Your task to perform on an android device: turn off wifi Image 0: 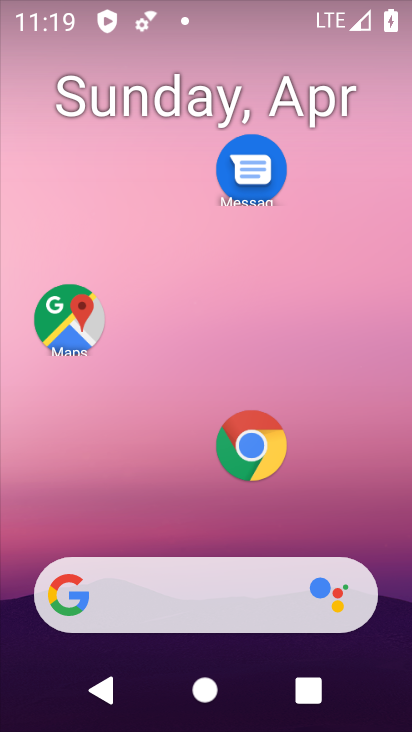
Step 0: drag from (160, 614) to (363, 102)
Your task to perform on an android device: turn off wifi Image 1: 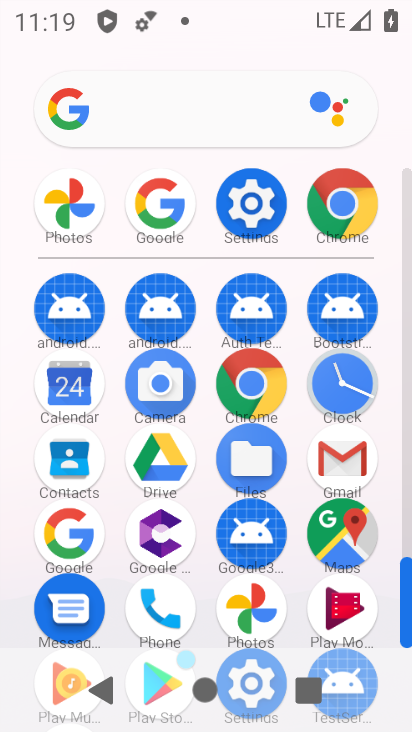
Step 1: click (248, 221)
Your task to perform on an android device: turn off wifi Image 2: 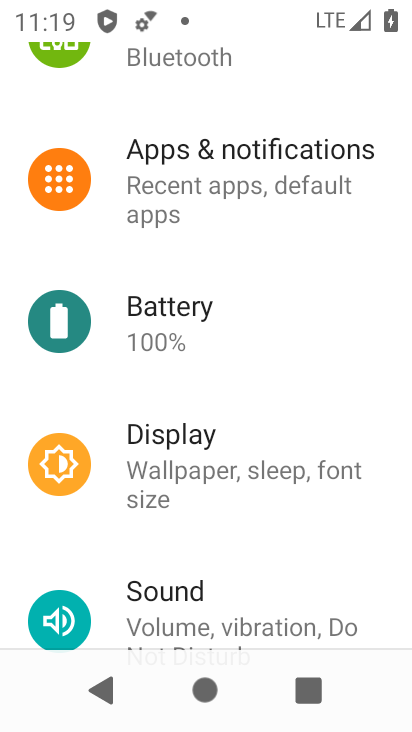
Step 2: drag from (284, 165) to (202, 569)
Your task to perform on an android device: turn off wifi Image 3: 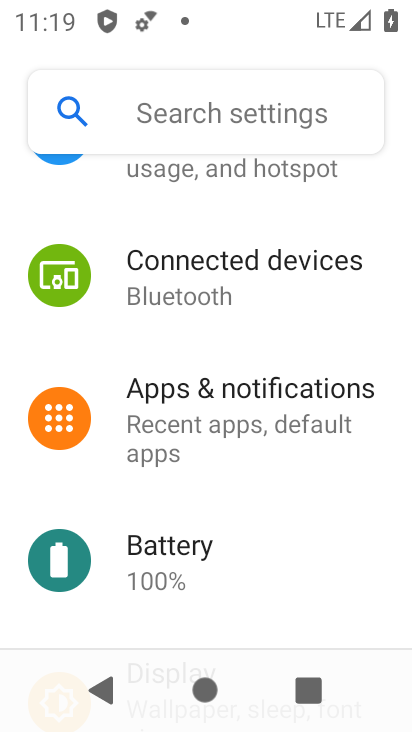
Step 3: drag from (247, 217) to (151, 657)
Your task to perform on an android device: turn off wifi Image 4: 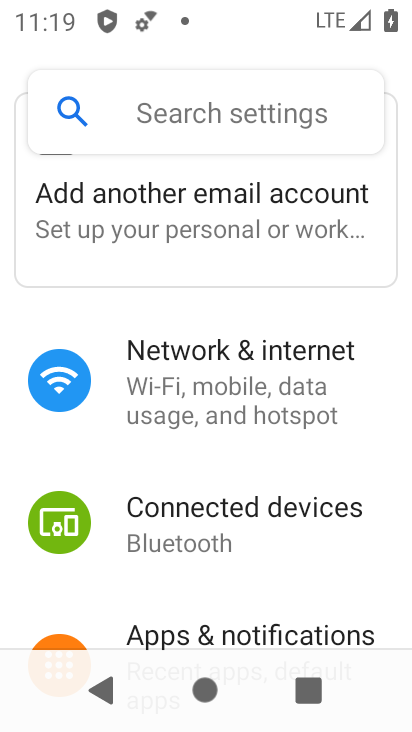
Step 4: click (225, 388)
Your task to perform on an android device: turn off wifi Image 5: 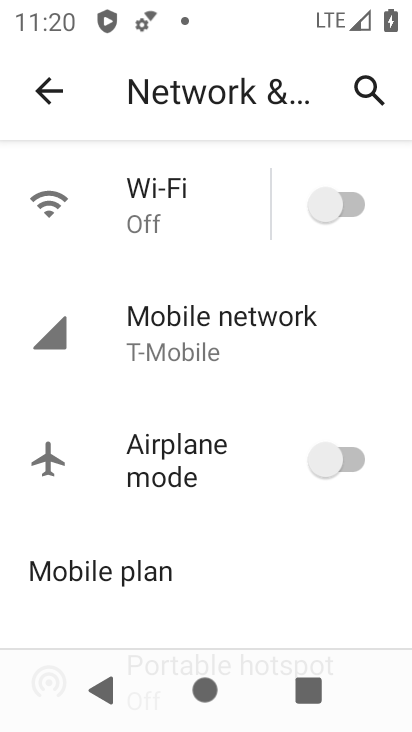
Step 5: task complete